Your task to perform on an android device: Open Google Chrome Image 0: 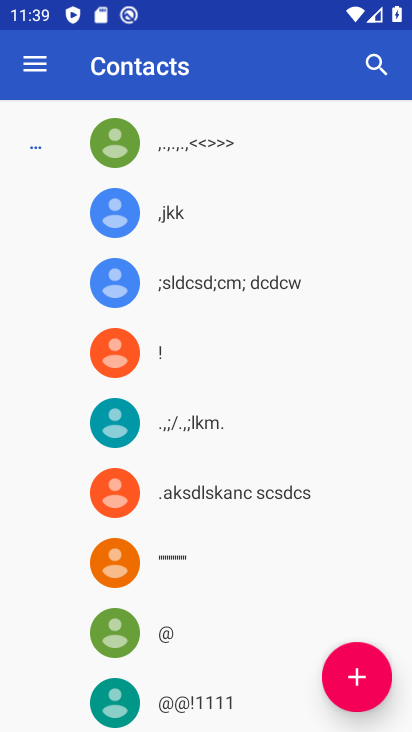
Step 0: press home button
Your task to perform on an android device: Open Google Chrome Image 1: 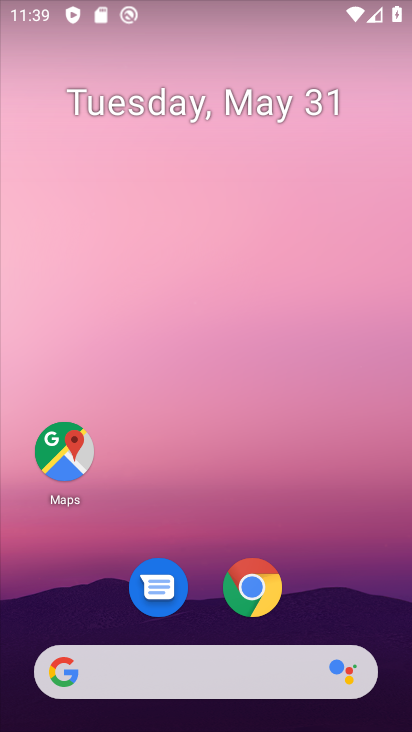
Step 1: click (266, 592)
Your task to perform on an android device: Open Google Chrome Image 2: 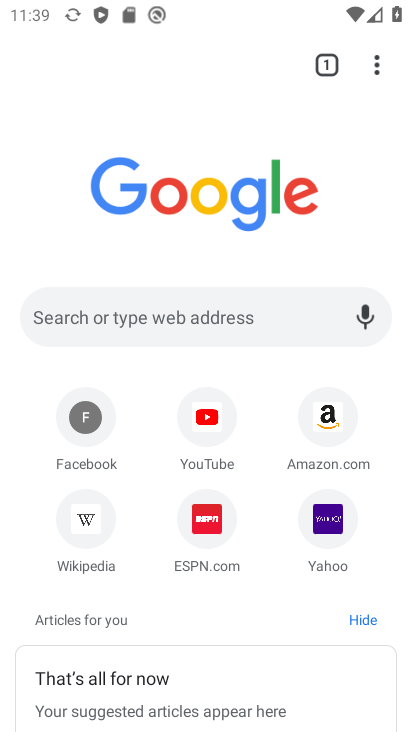
Step 2: task complete